Your task to perform on an android device: turn on priority inbox in the gmail app Image 0: 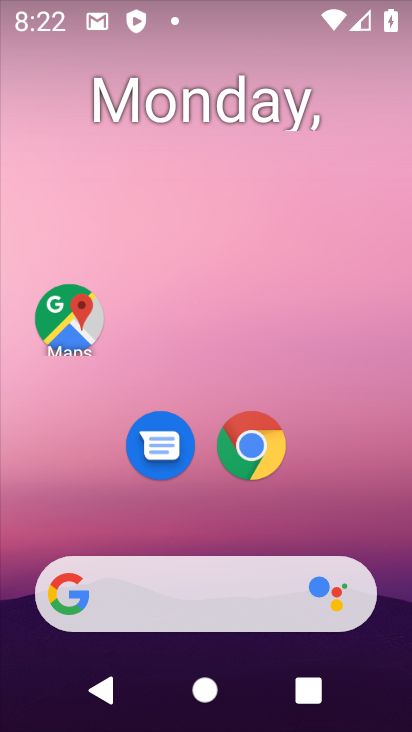
Step 0: drag from (153, 649) to (162, 1)
Your task to perform on an android device: turn on priority inbox in the gmail app Image 1: 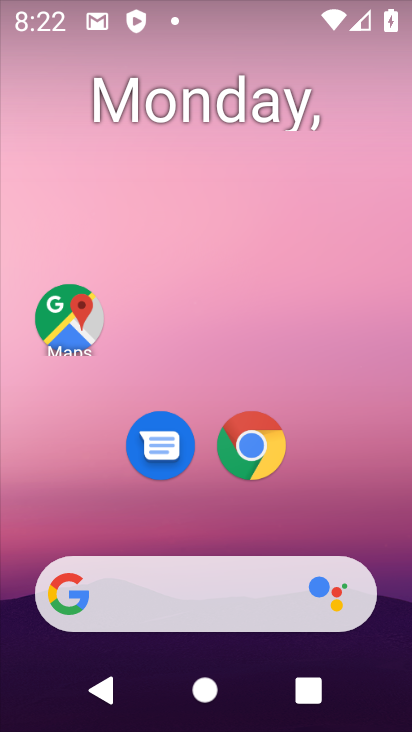
Step 1: drag from (162, 641) to (213, 143)
Your task to perform on an android device: turn on priority inbox in the gmail app Image 2: 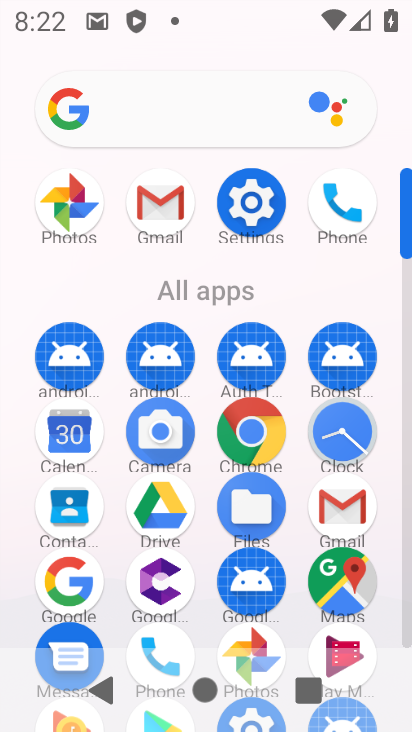
Step 2: click (154, 207)
Your task to perform on an android device: turn on priority inbox in the gmail app Image 3: 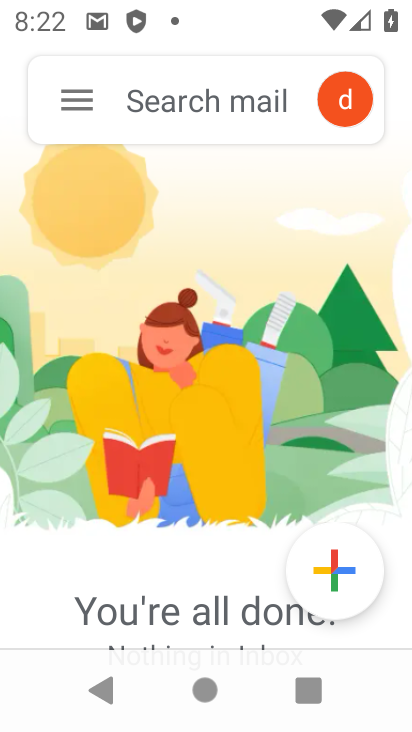
Step 3: click (81, 98)
Your task to perform on an android device: turn on priority inbox in the gmail app Image 4: 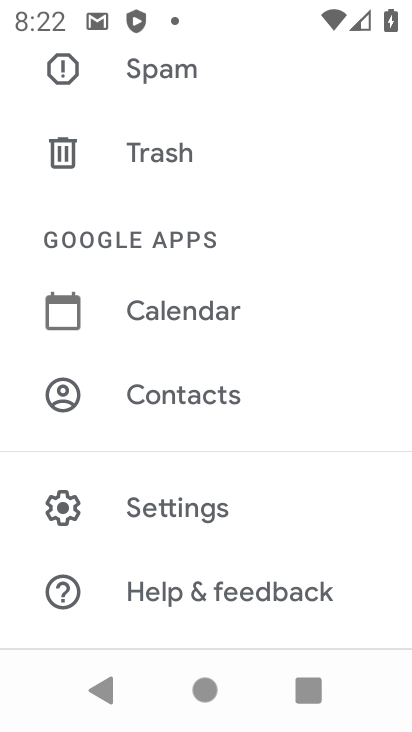
Step 4: click (218, 514)
Your task to perform on an android device: turn on priority inbox in the gmail app Image 5: 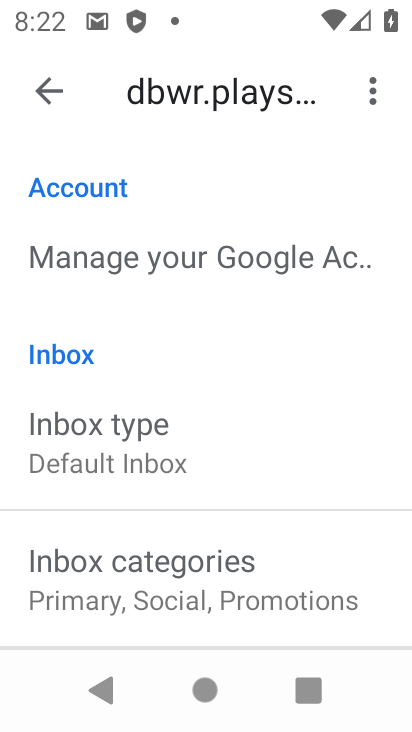
Step 5: click (147, 450)
Your task to perform on an android device: turn on priority inbox in the gmail app Image 6: 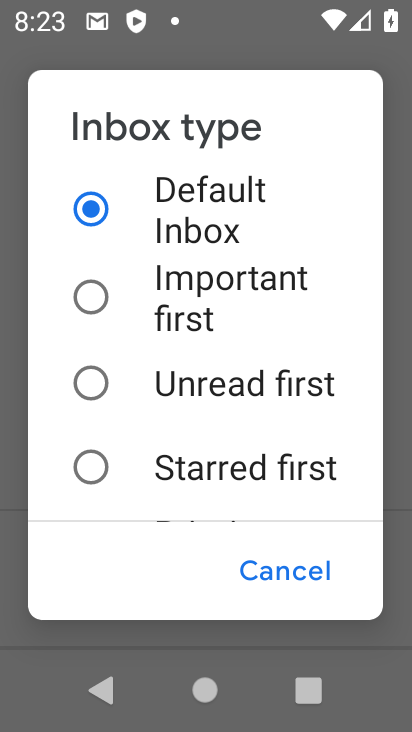
Step 6: drag from (224, 415) to (237, 0)
Your task to perform on an android device: turn on priority inbox in the gmail app Image 7: 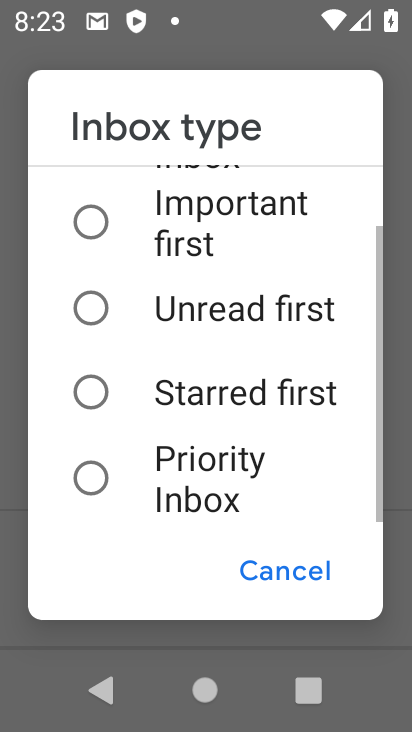
Step 7: click (213, 477)
Your task to perform on an android device: turn on priority inbox in the gmail app Image 8: 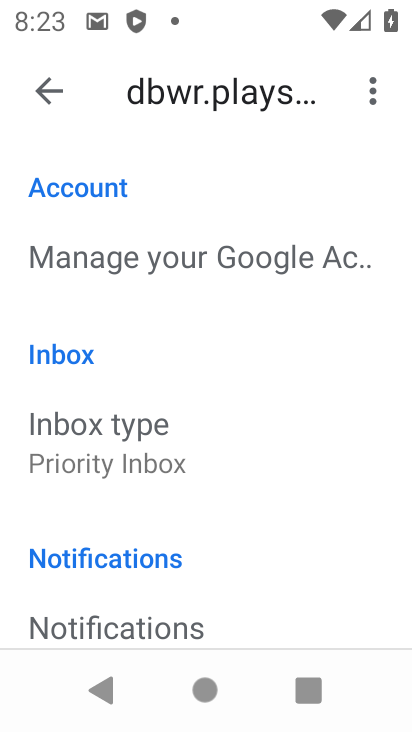
Step 8: task complete